Your task to perform on an android device: uninstall "Google Chrome" Image 0: 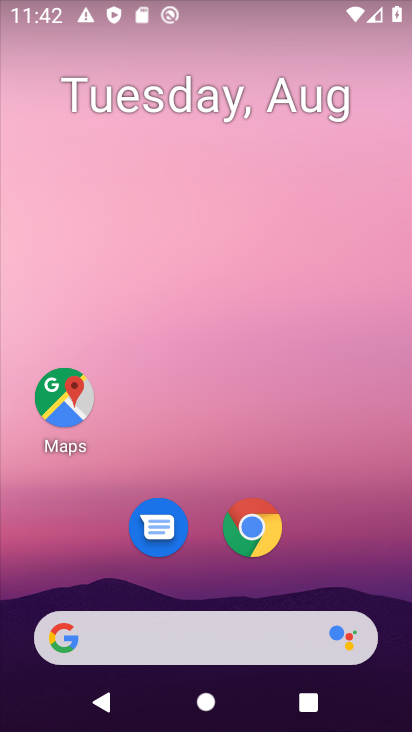
Step 0: click (310, 55)
Your task to perform on an android device: uninstall "Google Chrome" Image 1: 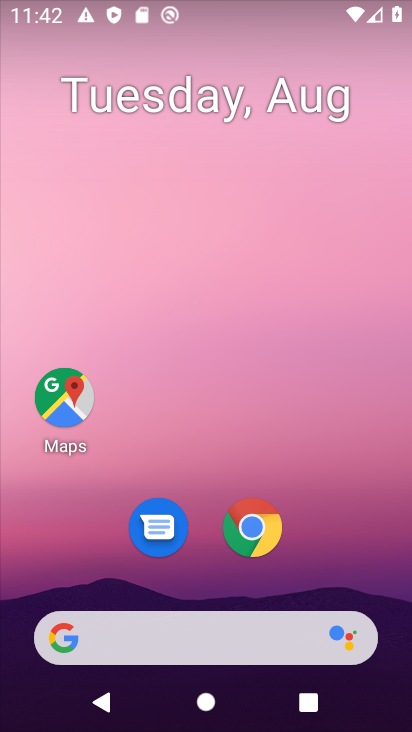
Step 1: drag from (212, 551) to (250, 59)
Your task to perform on an android device: uninstall "Google Chrome" Image 2: 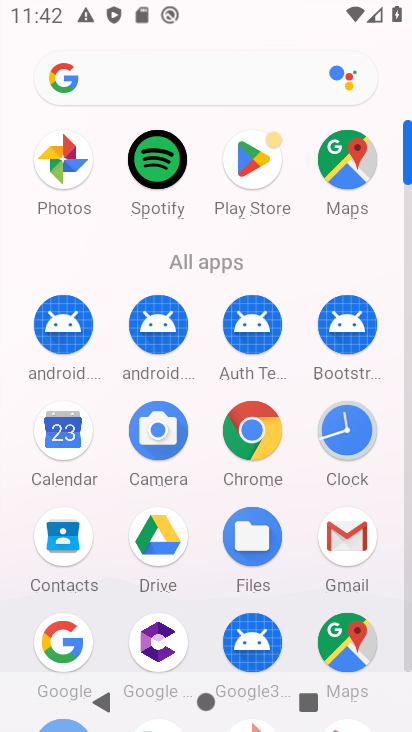
Step 2: click (261, 158)
Your task to perform on an android device: uninstall "Google Chrome" Image 3: 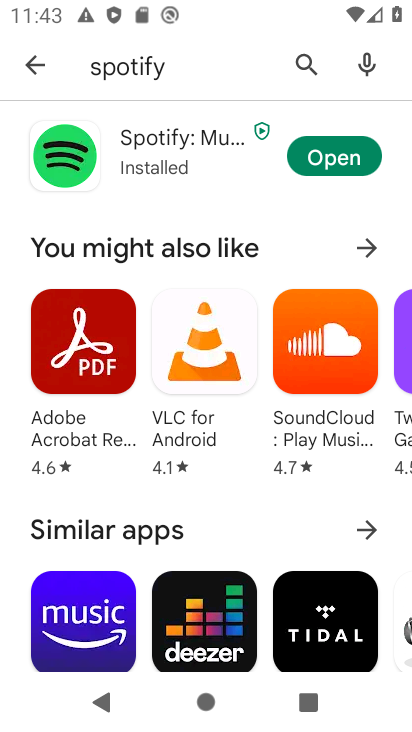
Step 3: click (301, 66)
Your task to perform on an android device: uninstall "Google Chrome" Image 4: 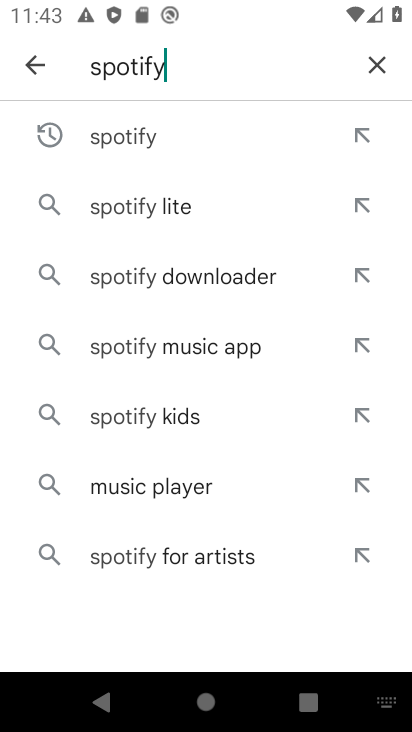
Step 4: click (372, 60)
Your task to perform on an android device: uninstall "Google Chrome" Image 5: 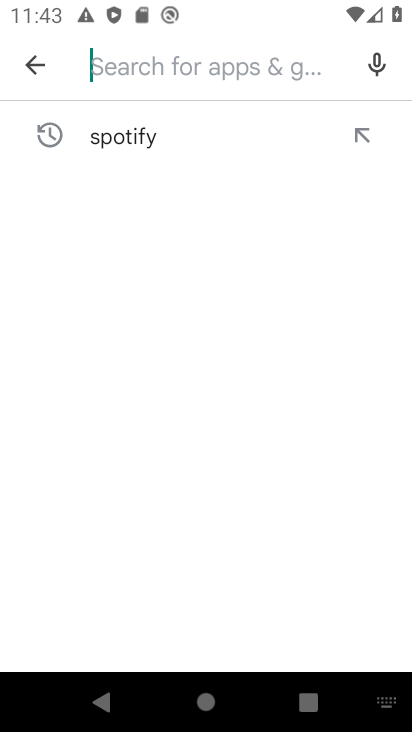
Step 5: type "google chrome"
Your task to perform on an android device: uninstall "Google Chrome" Image 6: 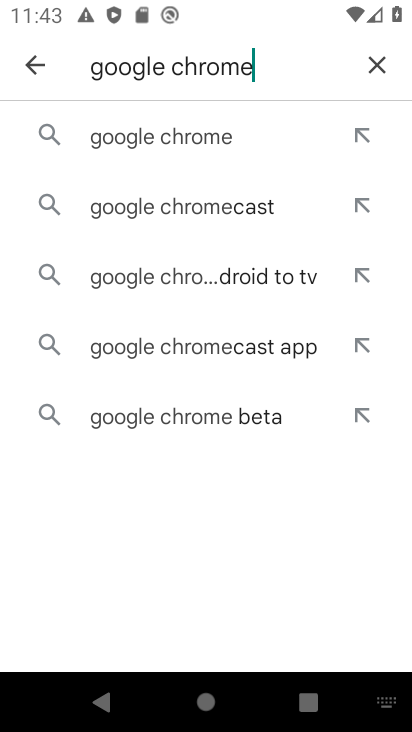
Step 6: click (225, 140)
Your task to perform on an android device: uninstall "Google Chrome" Image 7: 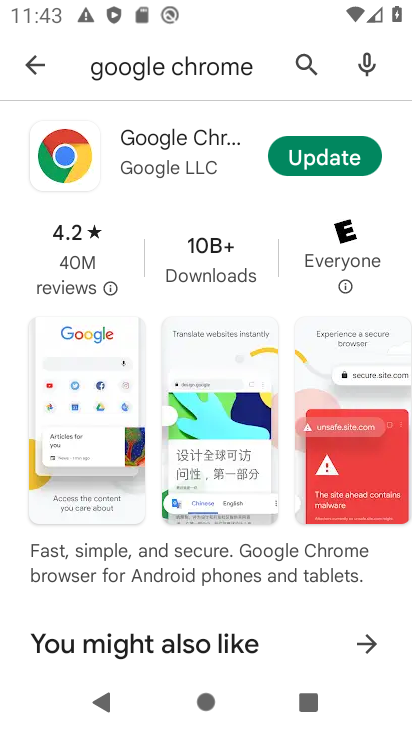
Step 7: click (188, 156)
Your task to perform on an android device: uninstall "Google Chrome" Image 8: 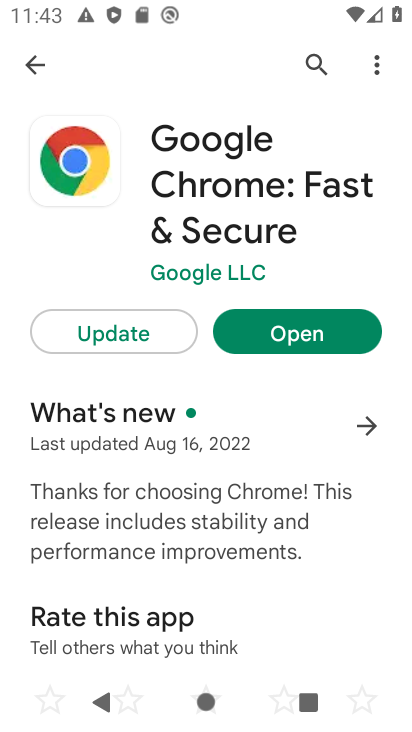
Step 8: task complete